Your task to perform on an android device: Check the weather Image 0: 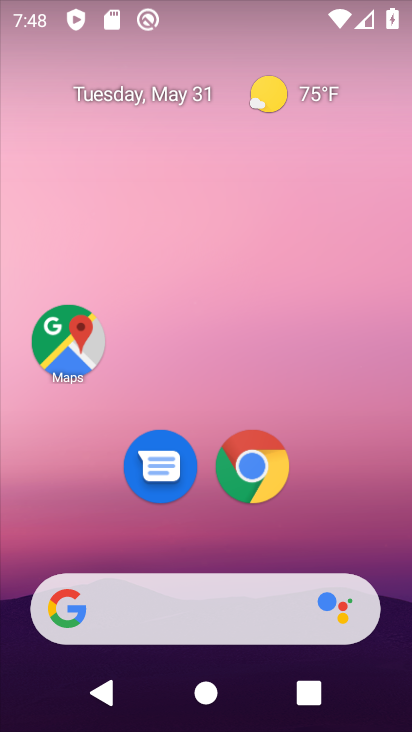
Step 0: drag from (221, 342) to (23, 49)
Your task to perform on an android device: Check the weather Image 1: 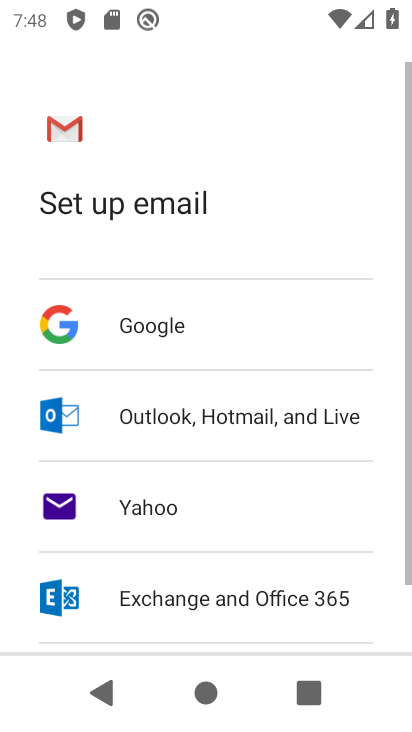
Step 1: press home button
Your task to perform on an android device: Check the weather Image 2: 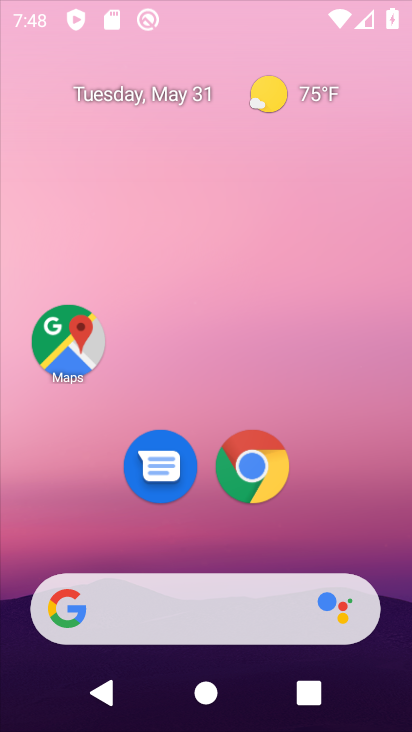
Step 2: drag from (225, 580) to (228, 19)
Your task to perform on an android device: Check the weather Image 3: 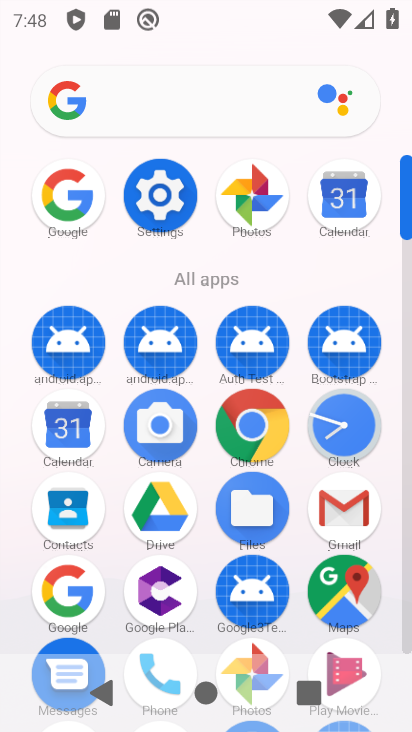
Step 3: click (156, 188)
Your task to perform on an android device: Check the weather Image 4: 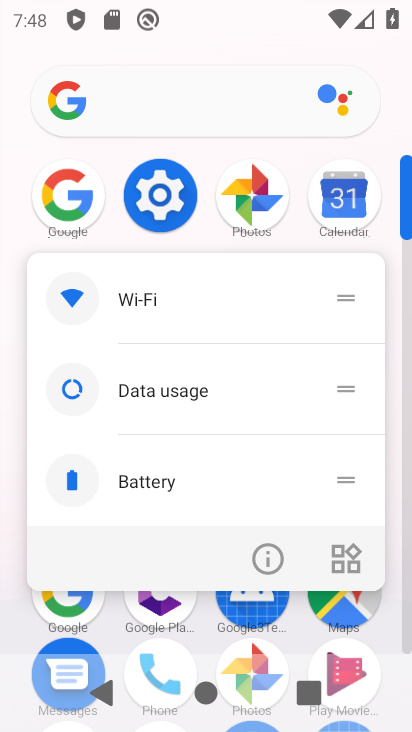
Step 4: click (188, 103)
Your task to perform on an android device: Check the weather Image 5: 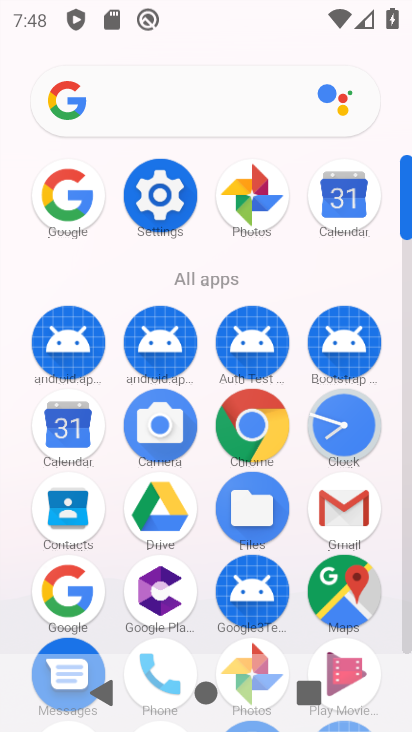
Step 5: click (150, 114)
Your task to perform on an android device: Check the weather Image 6: 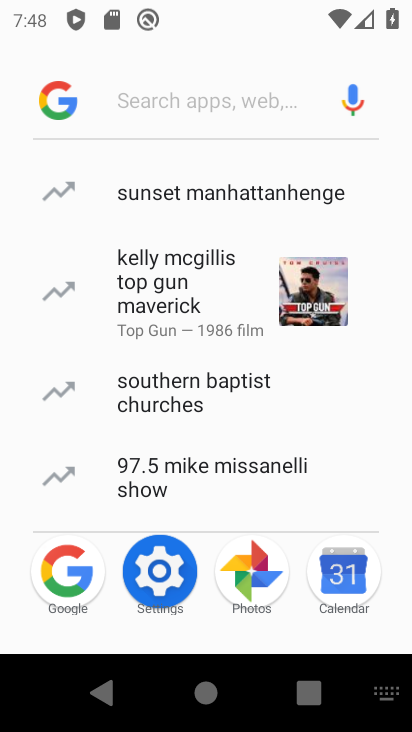
Step 6: type "weather"
Your task to perform on an android device: Check the weather Image 7: 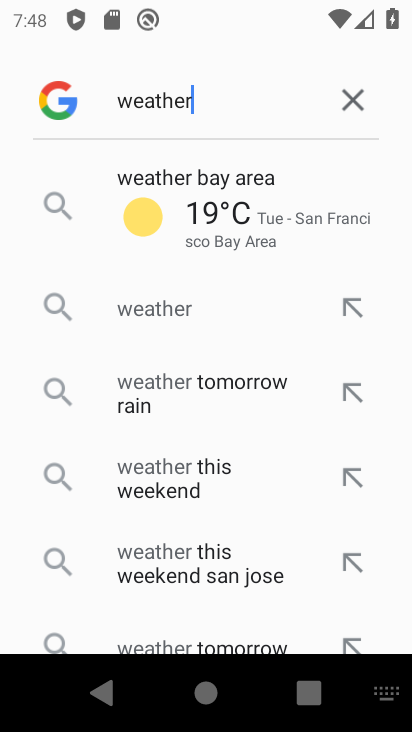
Step 7: click (257, 189)
Your task to perform on an android device: Check the weather Image 8: 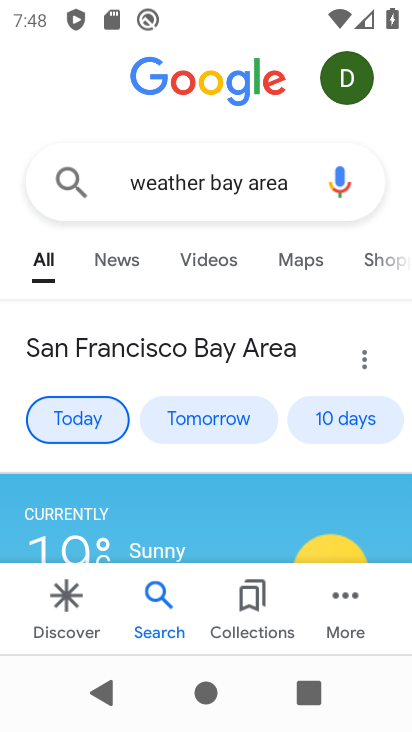
Step 8: task complete